Your task to perform on an android device: Play the last video I watched on Youtube Image 0: 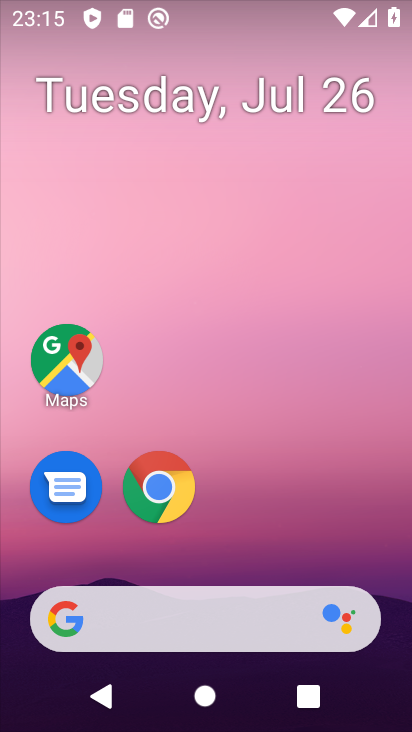
Step 0: drag from (308, 570) to (261, 6)
Your task to perform on an android device: Play the last video I watched on Youtube Image 1: 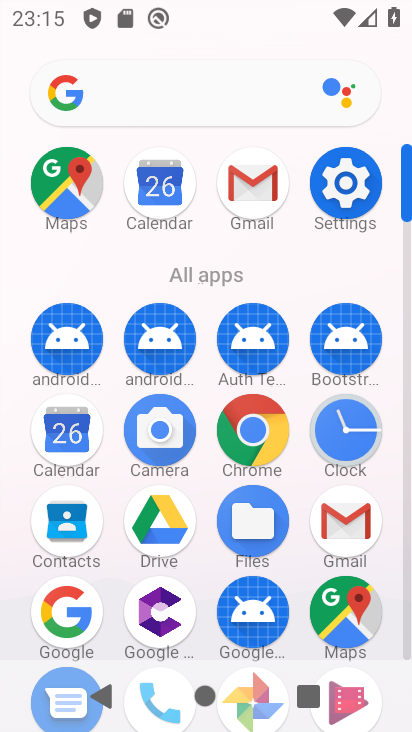
Step 1: drag from (171, 585) to (279, 0)
Your task to perform on an android device: Play the last video I watched on Youtube Image 2: 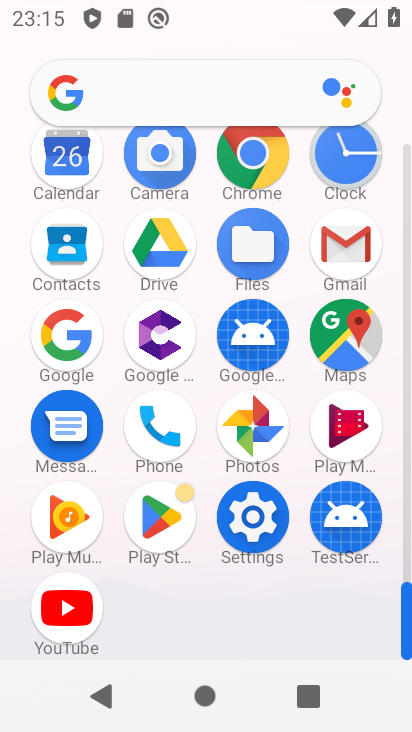
Step 2: click (80, 616)
Your task to perform on an android device: Play the last video I watched on Youtube Image 3: 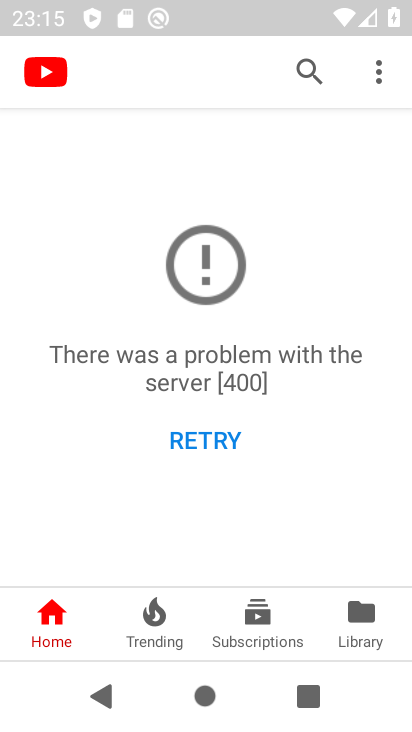
Step 3: click (363, 632)
Your task to perform on an android device: Play the last video I watched on Youtube Image 4: 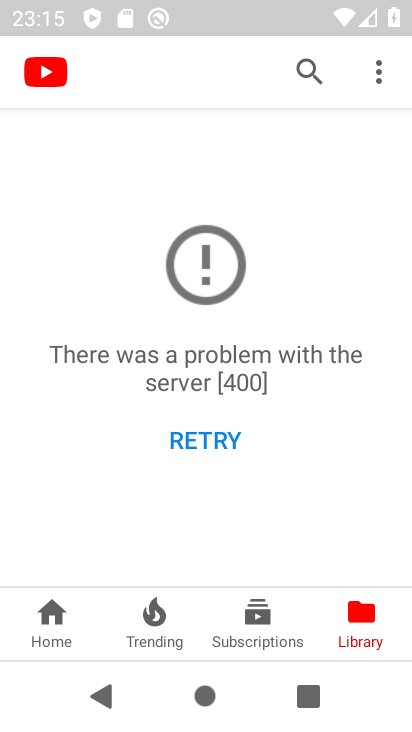
Step 4: task complete